Your task to perform on an android device: Clear the cart on bestbuy. Add razer kraken to the cart on bestbuy Image 0: 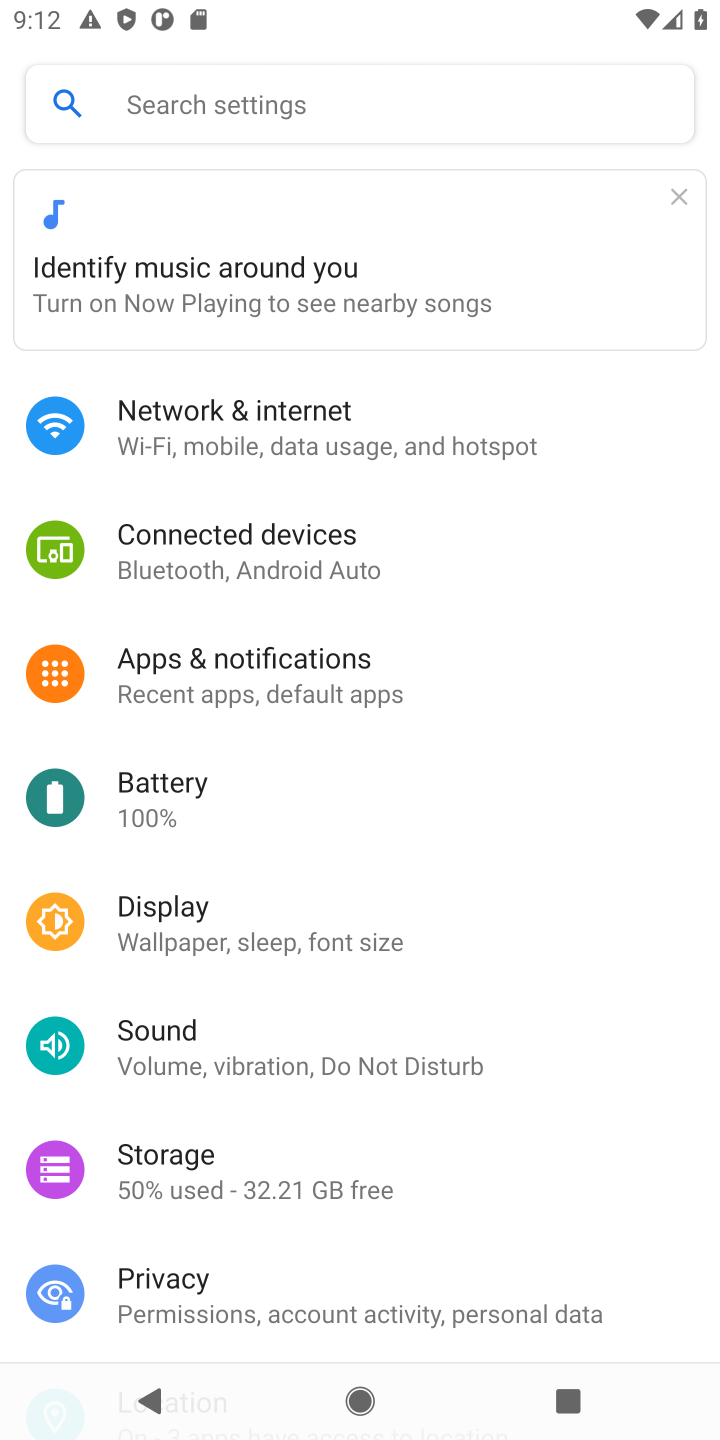
Step 0: press home button
Your task to perform on an android device: Clear the cart on bestbuy. Add razer kraken to the cart on bestbuy Image 1: 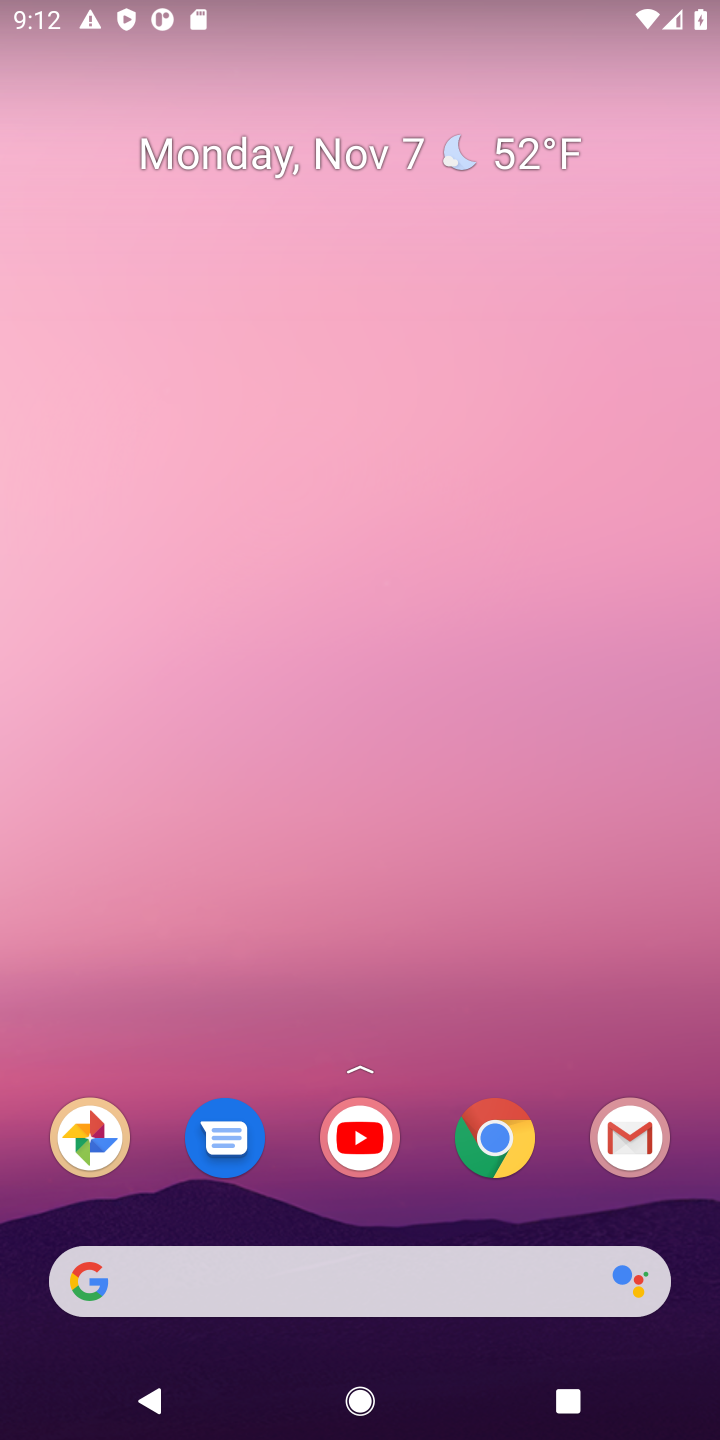
Step 1: drag from (392, 1075) to (427, 219)
Your task to perform on an android device: Clear the cart on bestbuy. Add razer kraken to the cart on bestbuy Image 2: 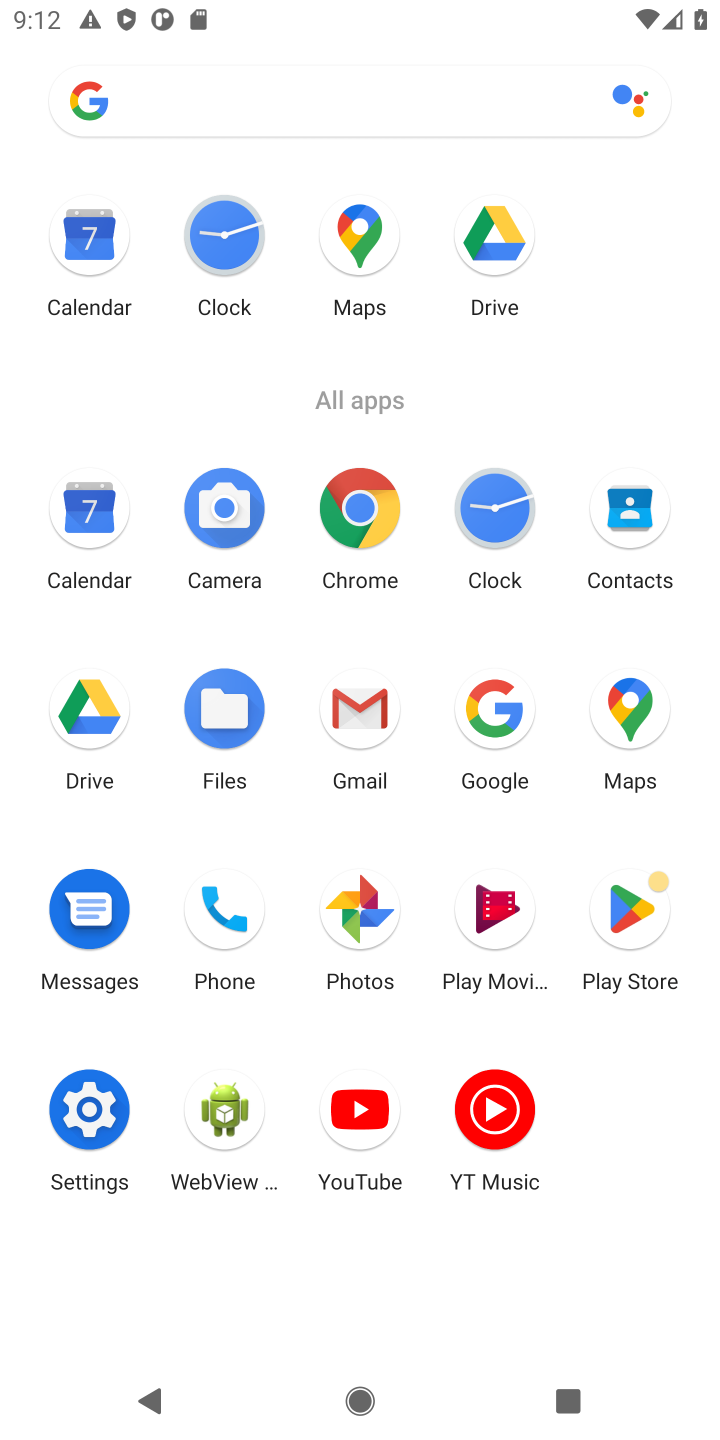
Step 2: click (356, 517)
Your task to perform on an android device: Clear the cart on bestbuy. Add razer kraken to the cart on bestbuy Image 3: 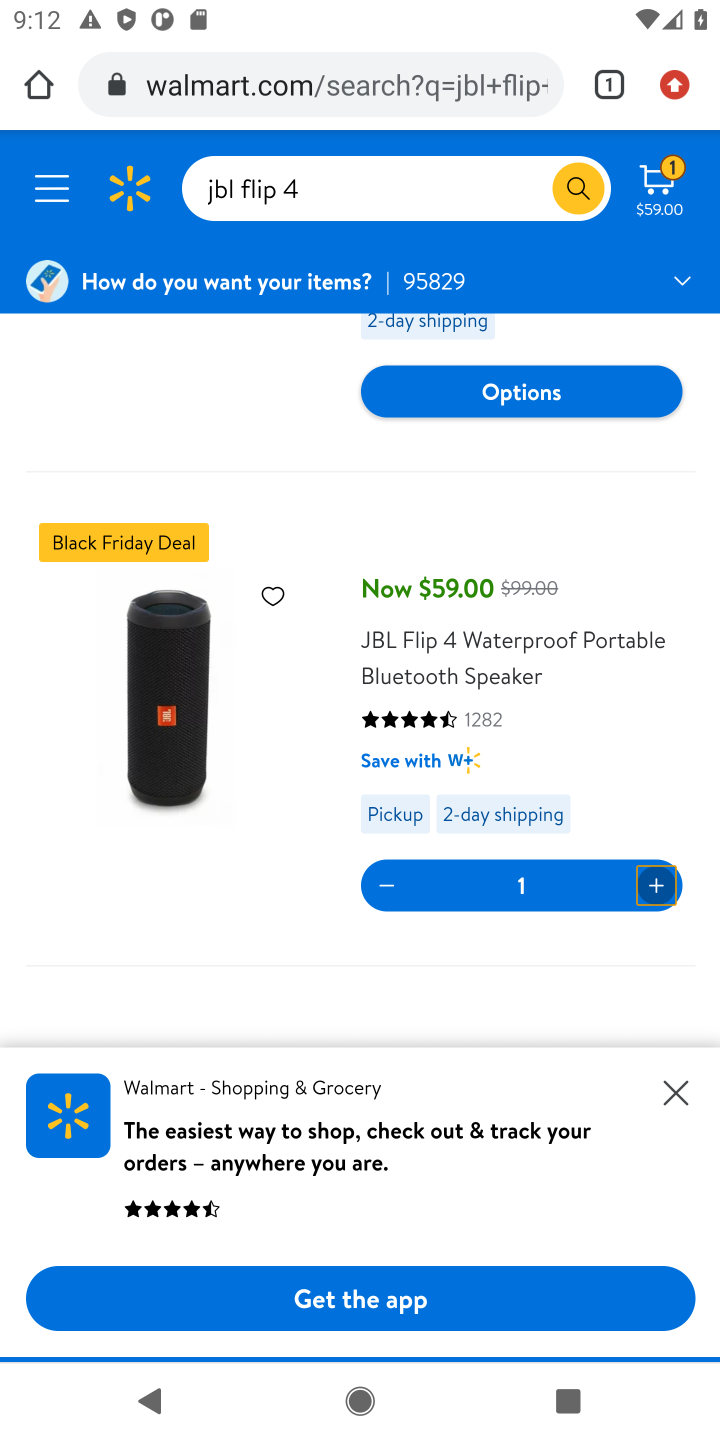
Step 3: click (432, 88)
Your task to perform on an android device: Clear the cart on bestbuy. Add razer kraken to the cart on bestbuy Image 4: 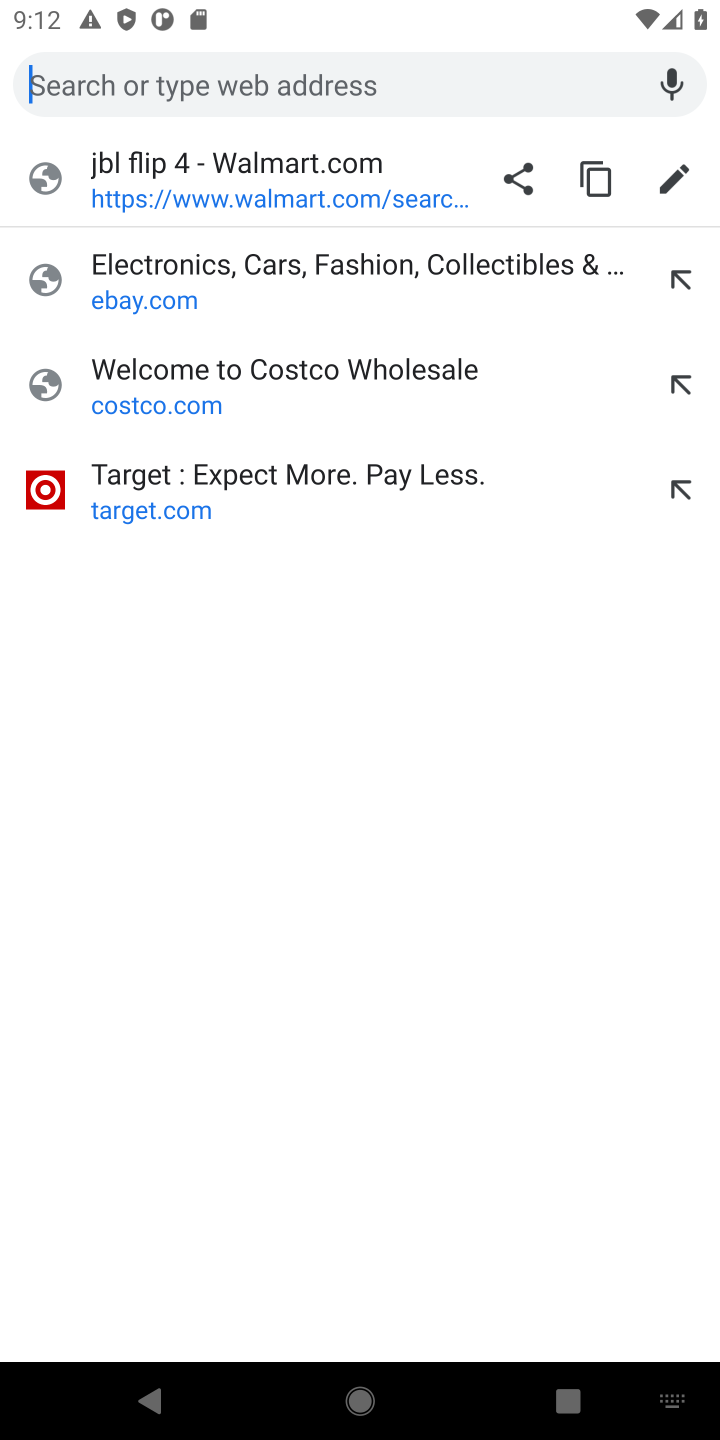
Step 4: type "bestbuy.com"
Your task to perform on an android device: Clear the cart on bestbuy. Add razer kraken to the cart on bestbuy Image 5: 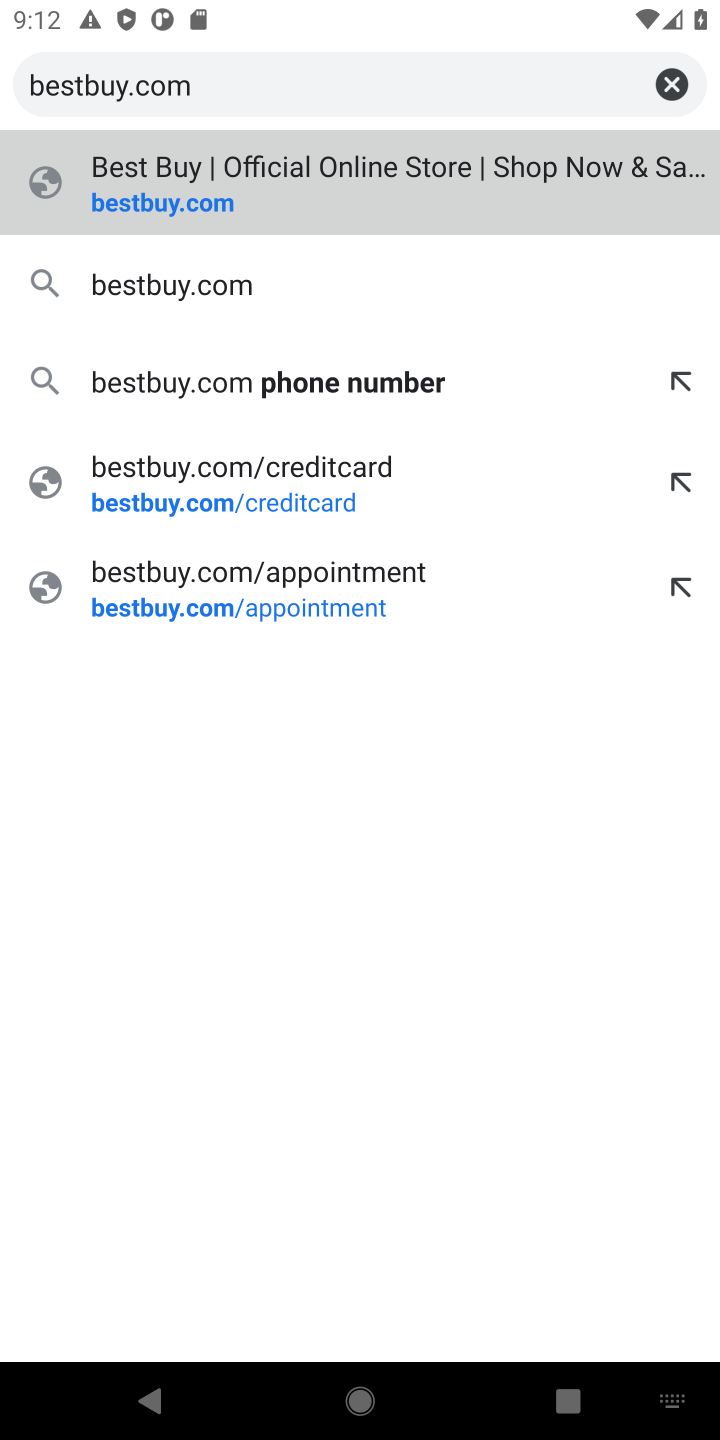
Step 5: press enter
Your task to perform on an android device: Clear the cart on bestbuy. Add razer kraken to the cart on bestbuy Image 6: 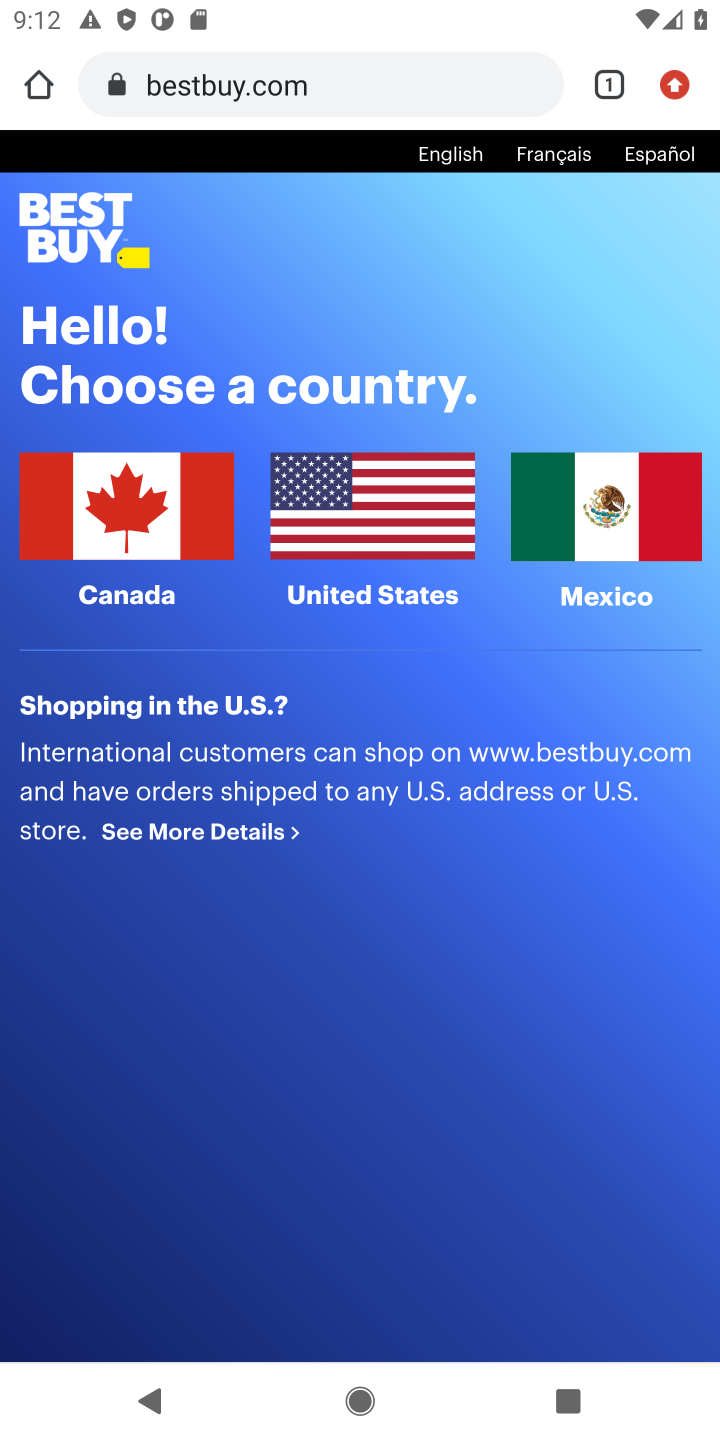
Step 6: click (100, 530)
Your task to perform on an android device: Clear the cart on bestbuy. Add razer kraken to the cart on bestbuy Image 7: 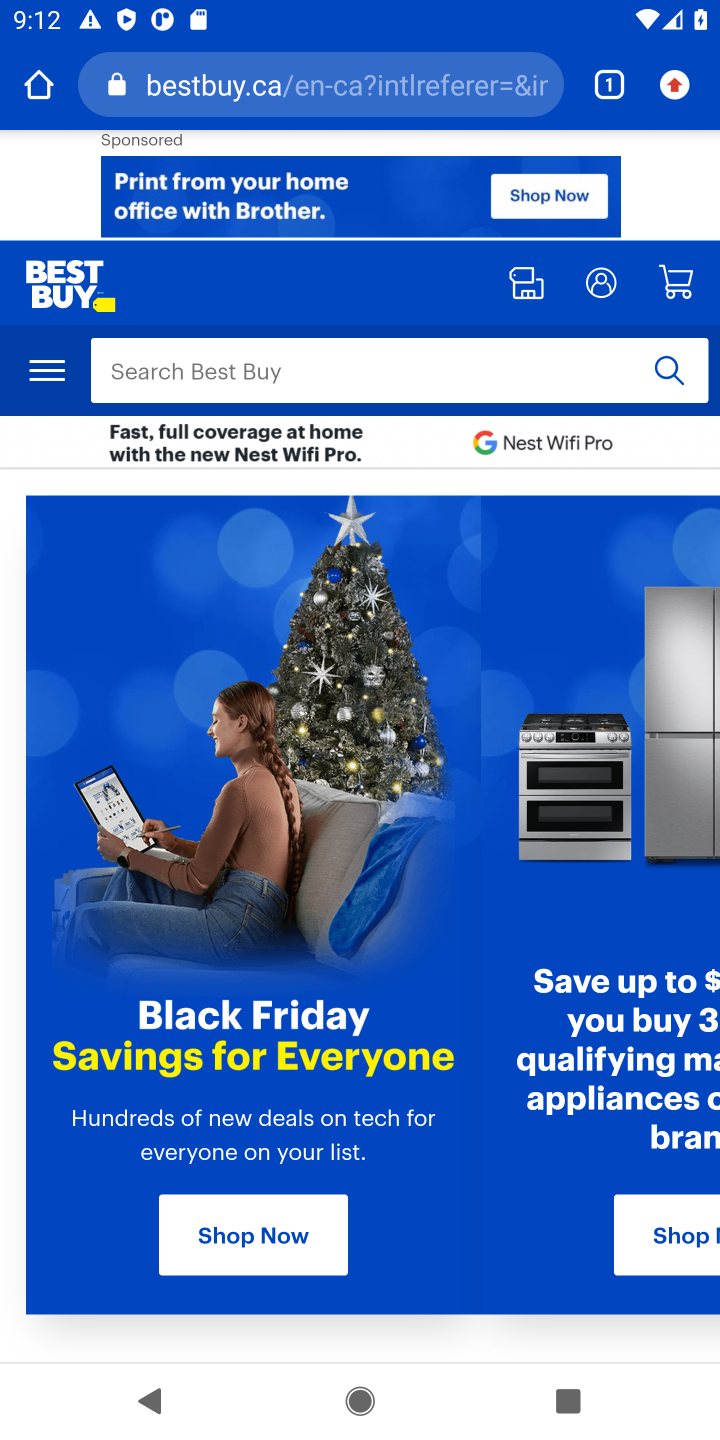
Step 7: click (680, 279)
Your task to perform on an android device: Clear the cart on bestbuy. Add razer kraken to the cart on bestbuy Image 8: 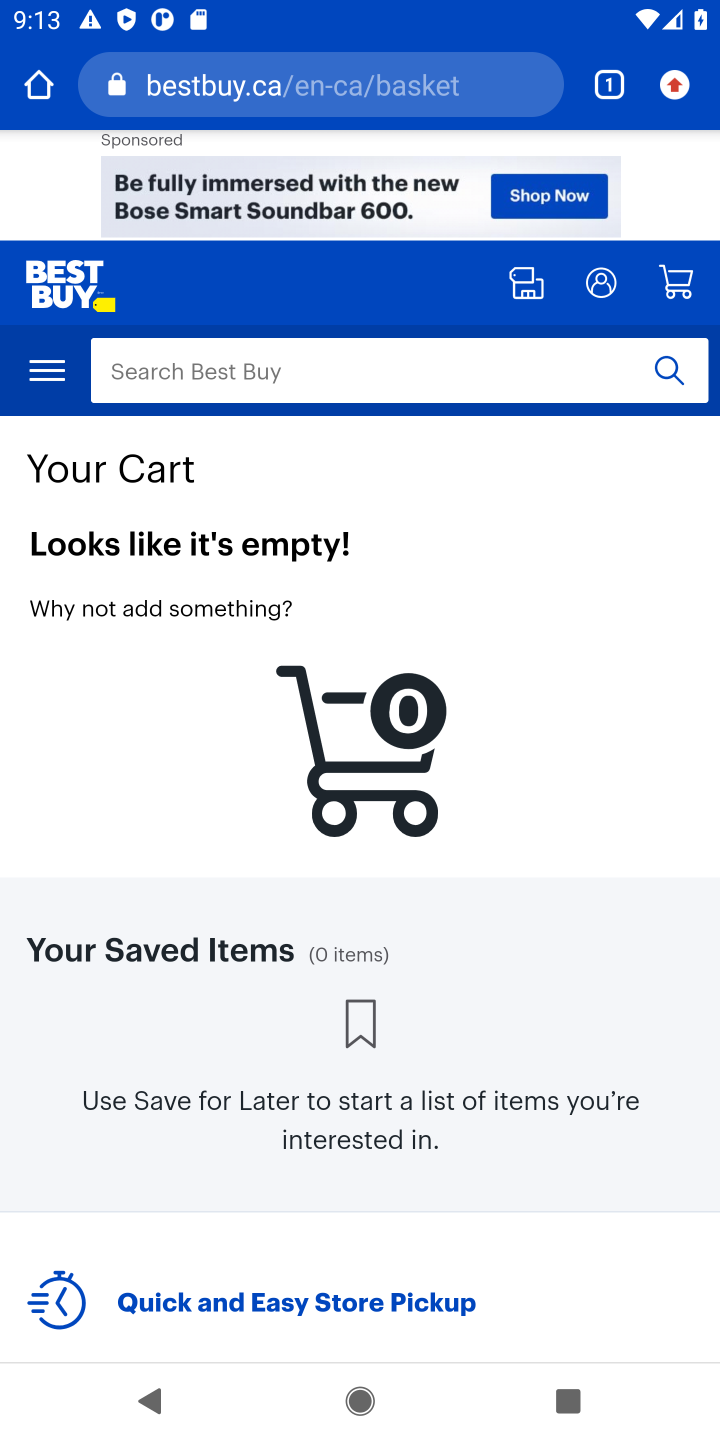
Step 8: click (438, 367)
Your task to perform on an android device: Clear the cart on bestbuy. Add razer kraken to the cart on bestbuy Image 9: 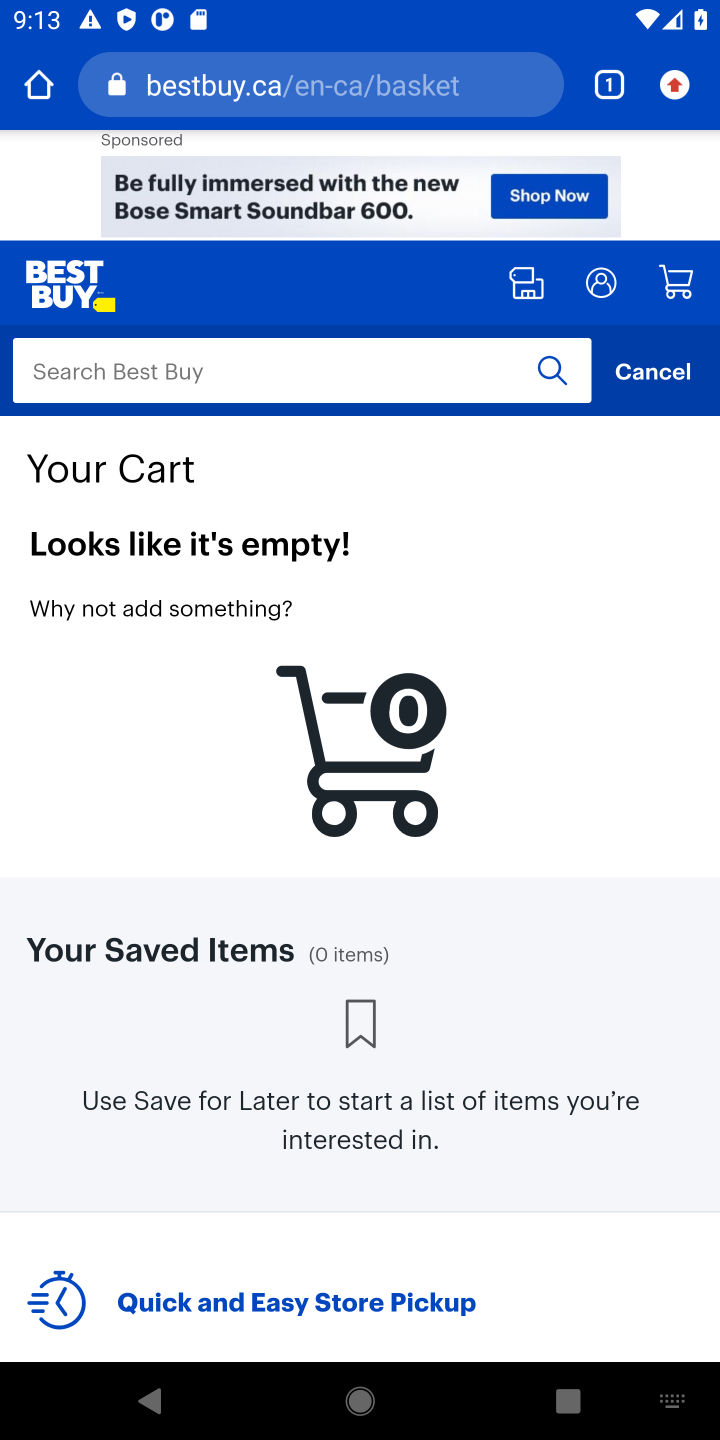
Step 9: type "razer kraken"
Your task to perform on an android device: Clear the cart on bestbuy. Add razer kraken to the cart on bestbuy Image 10: 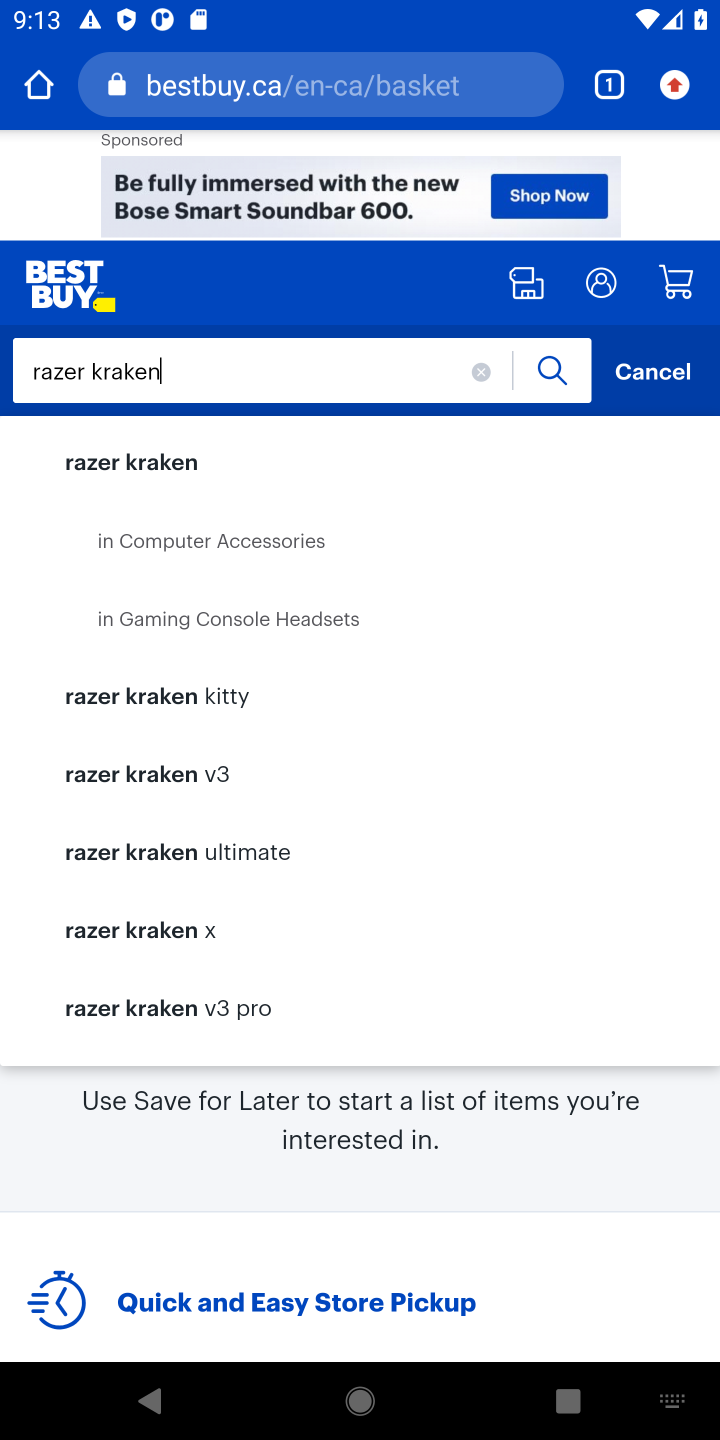
Step 10: press enter
Your task to perform on an android device: Clear the cart on bestbuy. Add razer kraken to the cart on bestbuy Image 11: 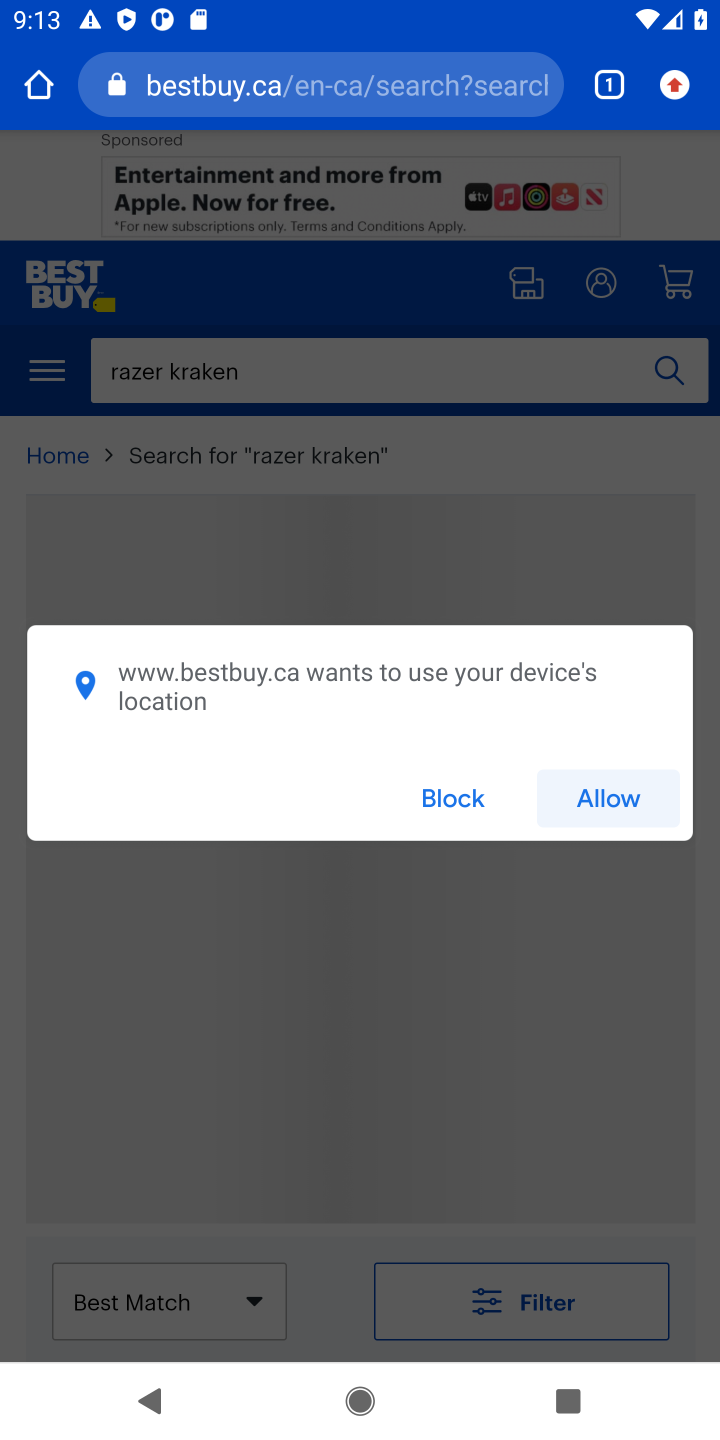
Step 11: click (452, 802)
Your task to perform on an android device: Clear the cart on bestbuy. Add razer kraken to the cart on bestbuy Image 12: 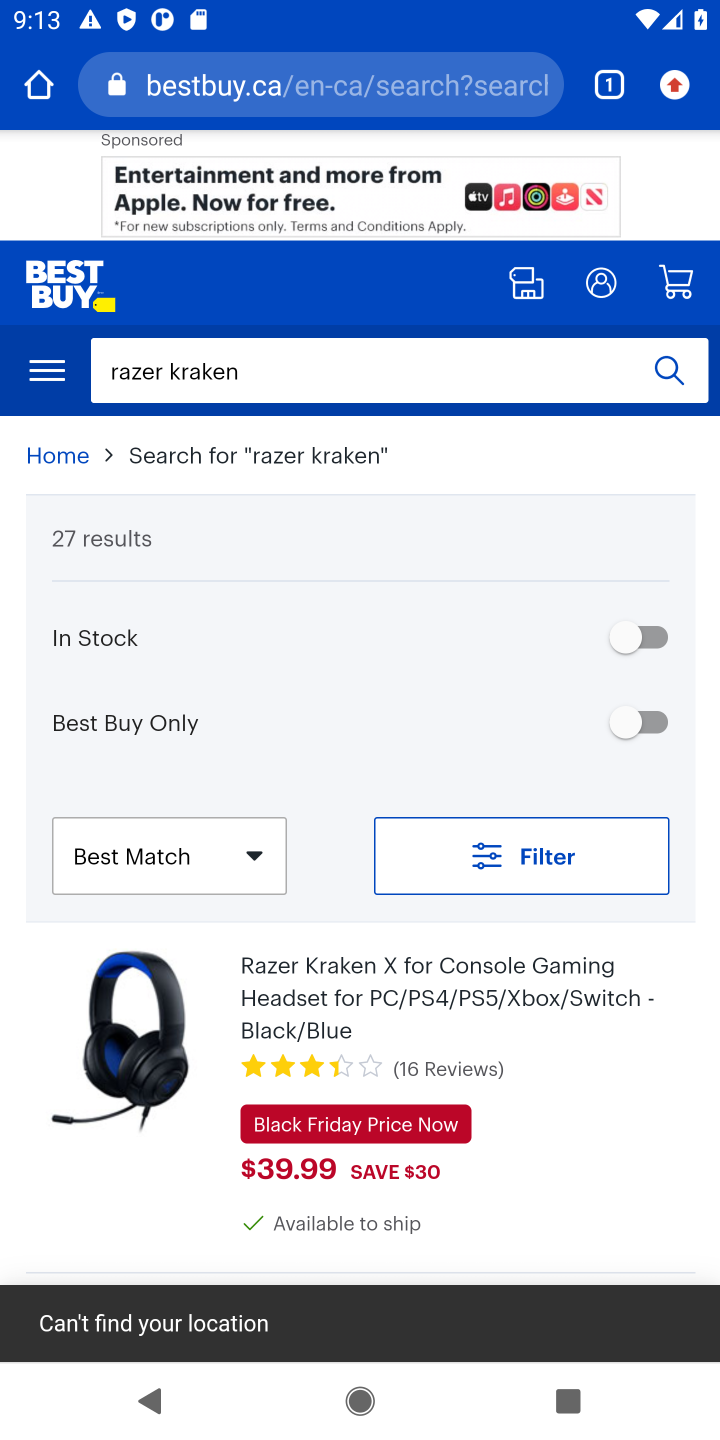
Step 12: drag from (630, 1157) to (511, 528)
Your task to perform on an android device: Clear the cart on bestbuy. Add razer kraken to the cart on bestbuy Image 13: 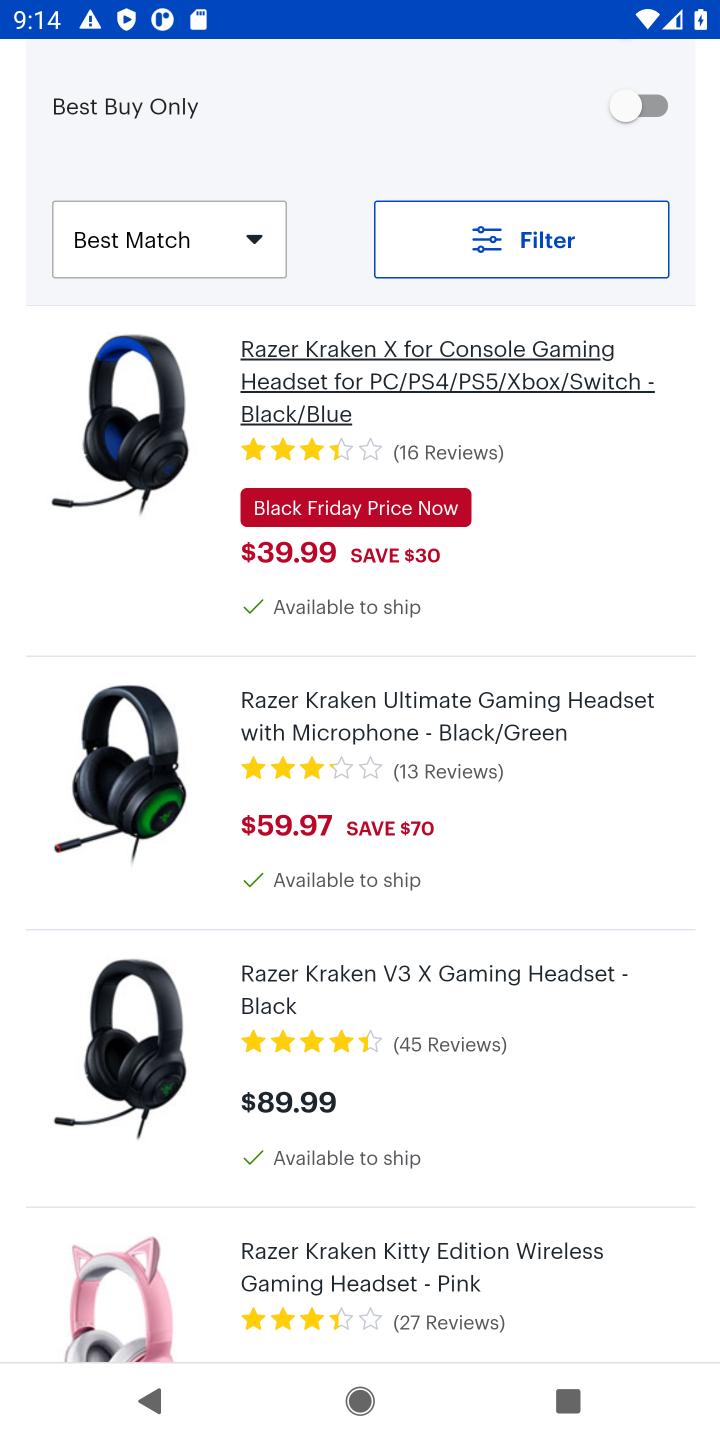
Step 13: click (472, 368)
Your task to perform on an android device: Clear the cart on bestbuy. Add razer kraken to the cart on bestbuy Image 14: 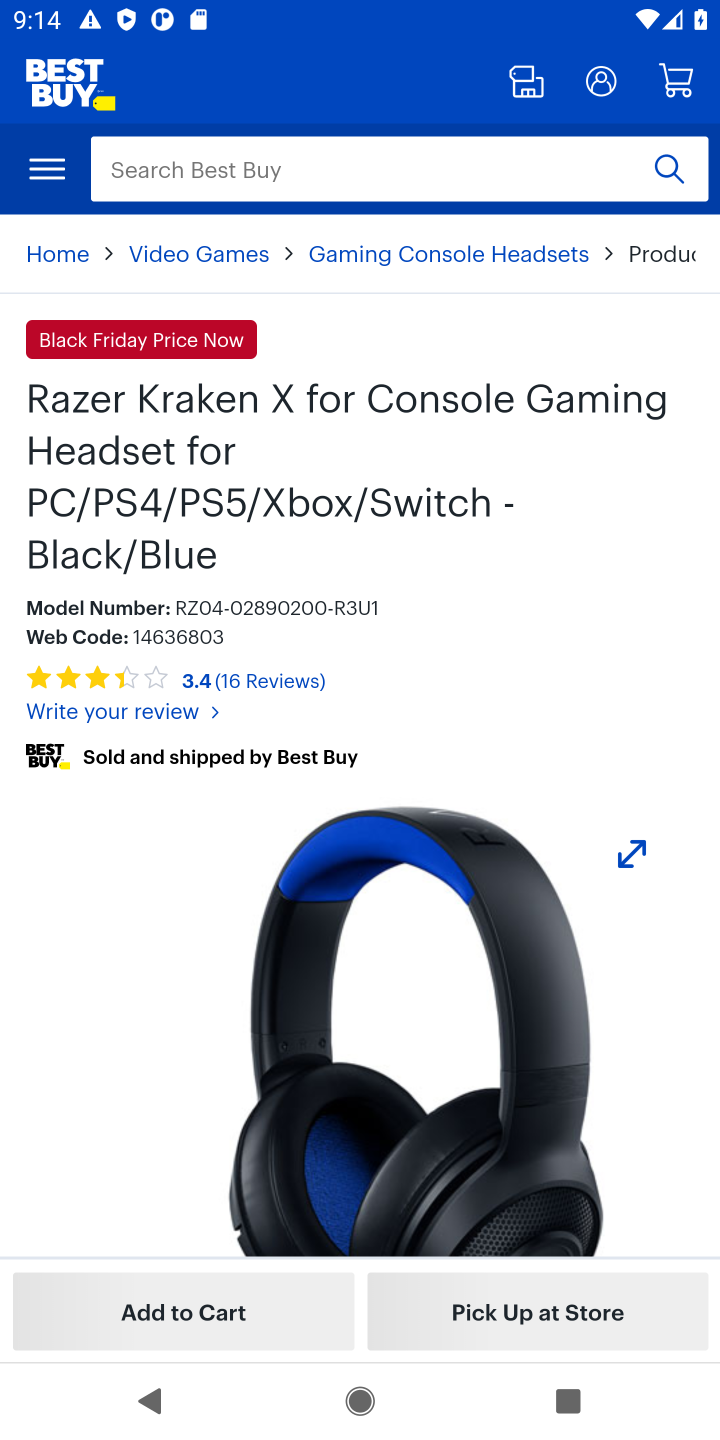
Step 14: drag from (608, 786) to (571, 196)
Your task to perform on an android device: Clear the cart on bestbuy. Add razer kraken to the cart on bestbuy Image 15: 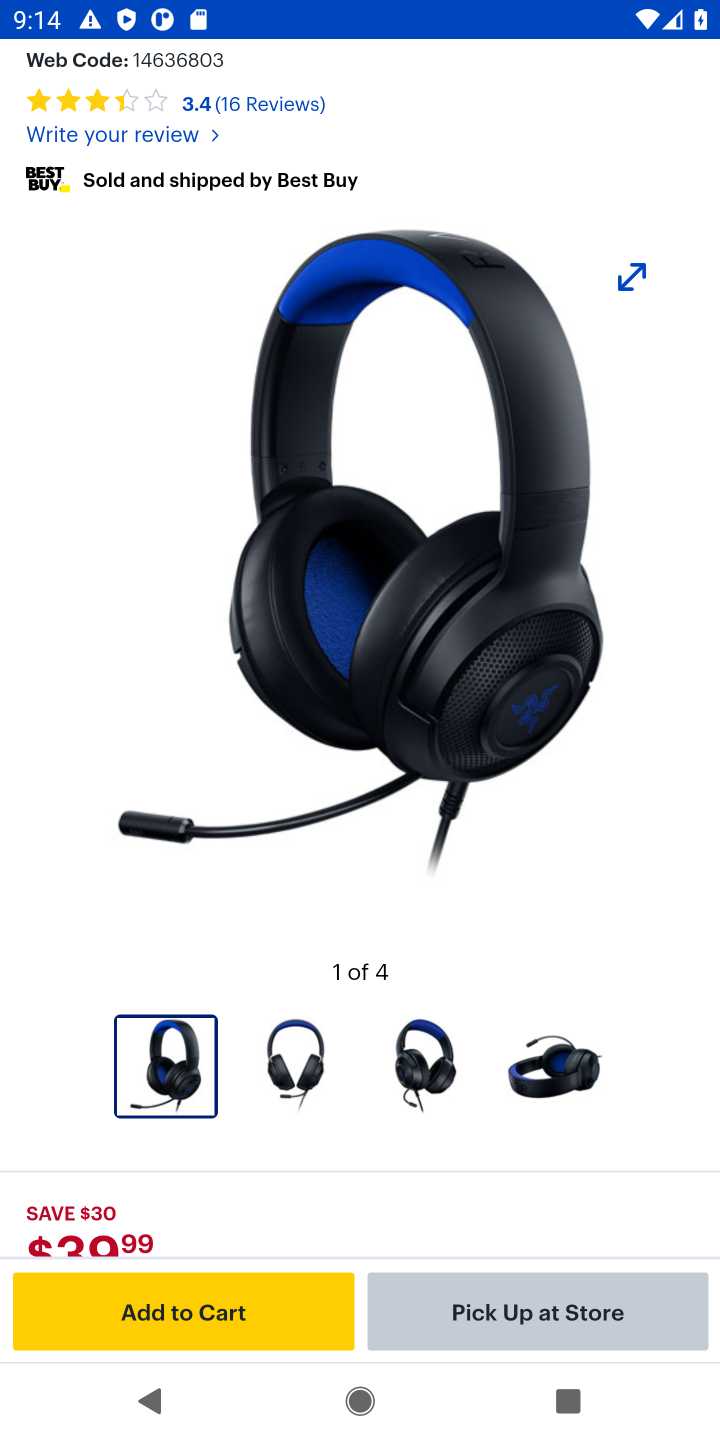
Step 15: click (165, 1306)
Your task to perform on an android device: Clear the cart on bestbuy. Add razer kraken to the cart on bestbuy Image 16: 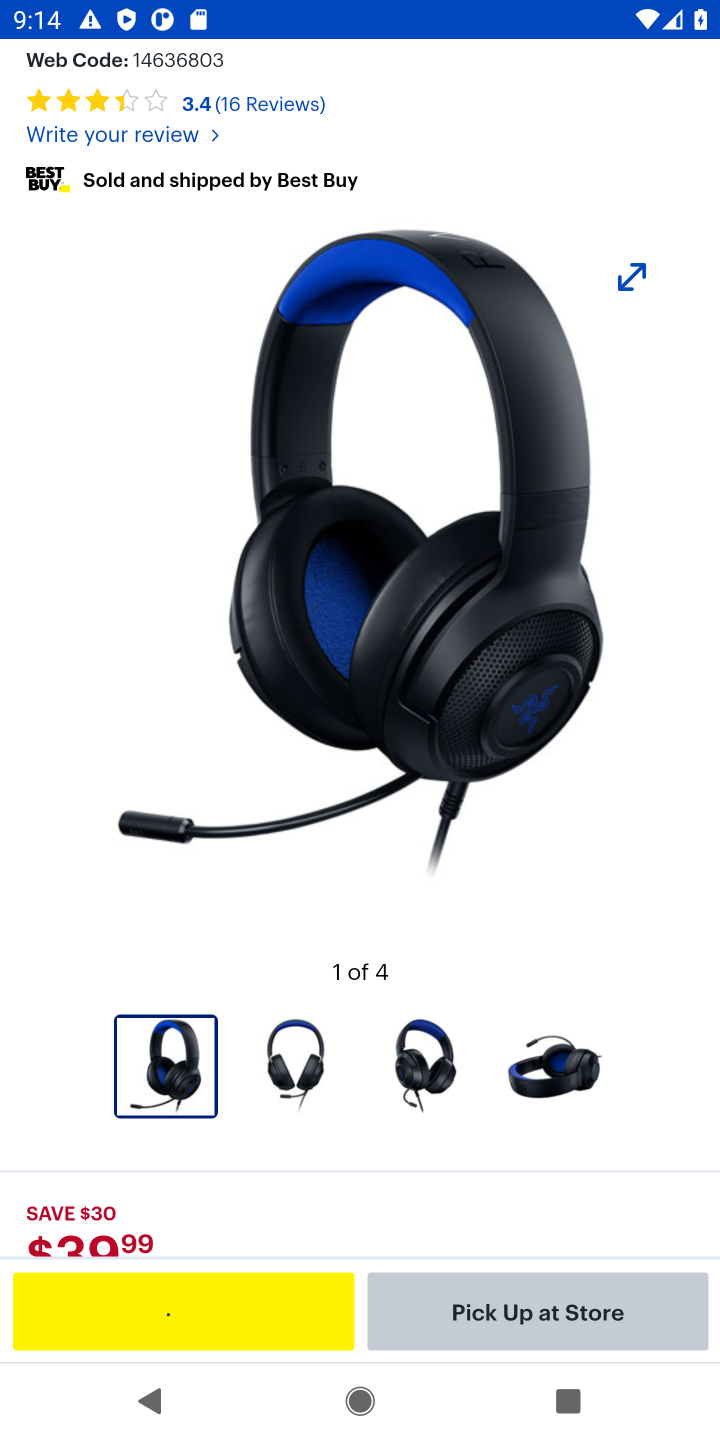
Step 16: task complete